Your task to perform on an android device: When is my next meeting? Image 0: 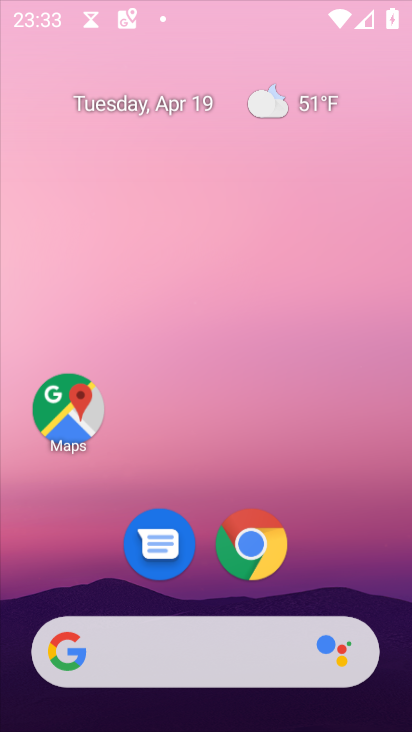
Step 0: drag from (326, 593) to (274, 62)
Your task to perform on an android device: When is my next meeting? Image 1: 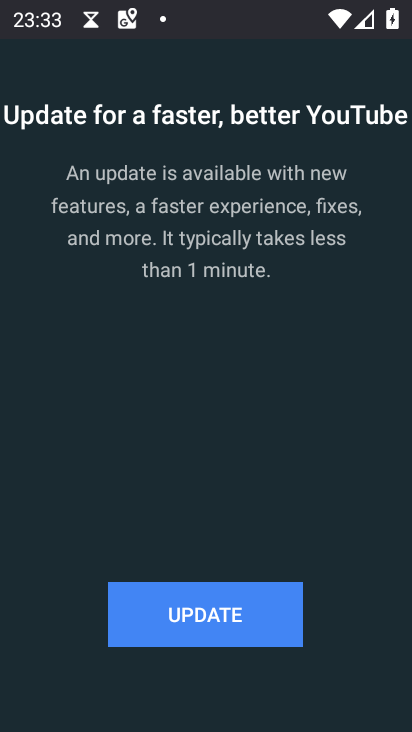
Step 1: press home button
Your task to perform on an android device: When is my next meeting? Image 2: 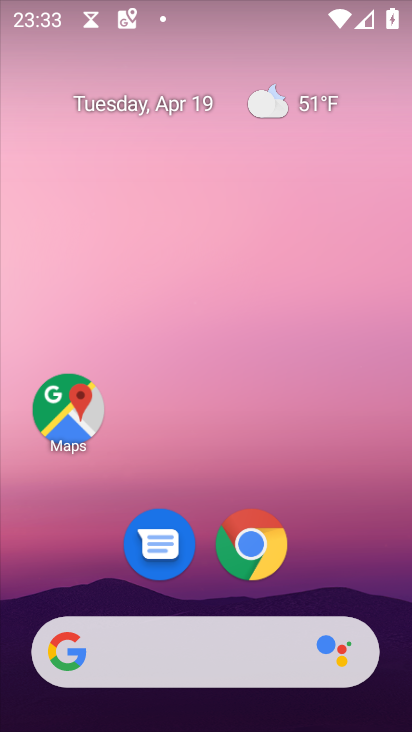
Step 2: drag from (313, 594) to (300, 150)
Your task to perform on an android device: When is my next meeting? Image 3: 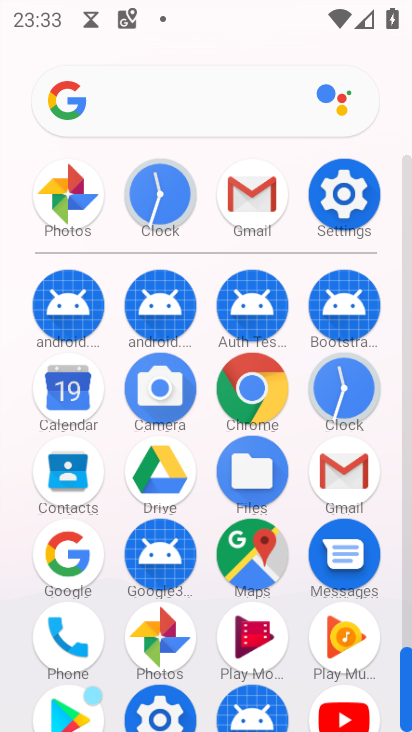
Step 3: click (45, 382)
Your task to perform on an android device: When is my next meeting? Image 4: 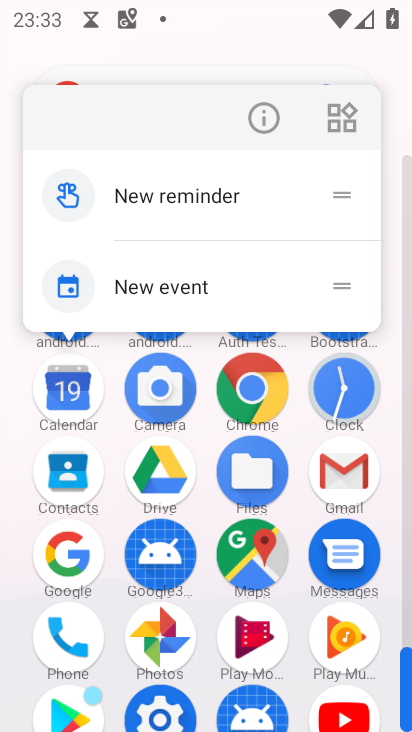
Step 4: click (72, 409)
Your task to perform on an android device: When is my next meeting? Image 5: 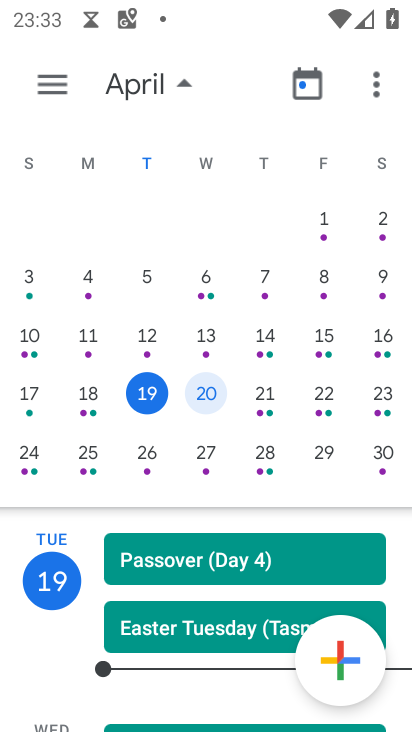
Step 5: click (227, 409)
Your task to perform on an android device: When is my next meeting? Image 6: 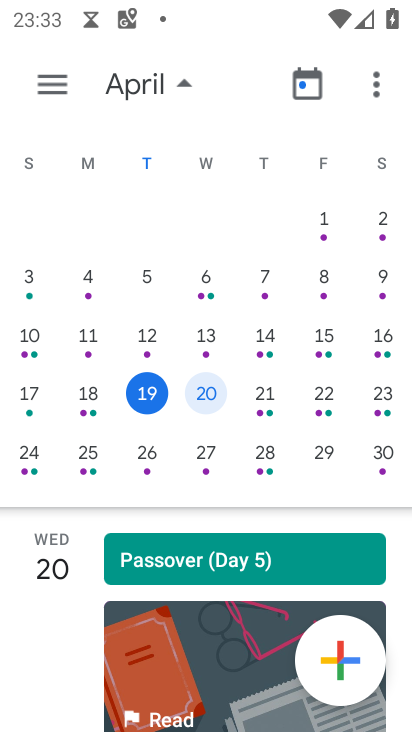
Step 6: click (174, 395)
Your task to perform on an android device: When is my next meeting? Image 7: 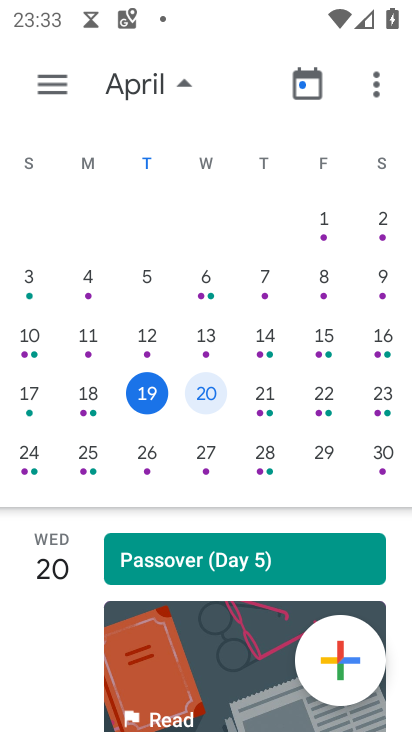
Step 7: click (160, 406)
Your task to perform on an android device: When is my next meeting? Image 8: 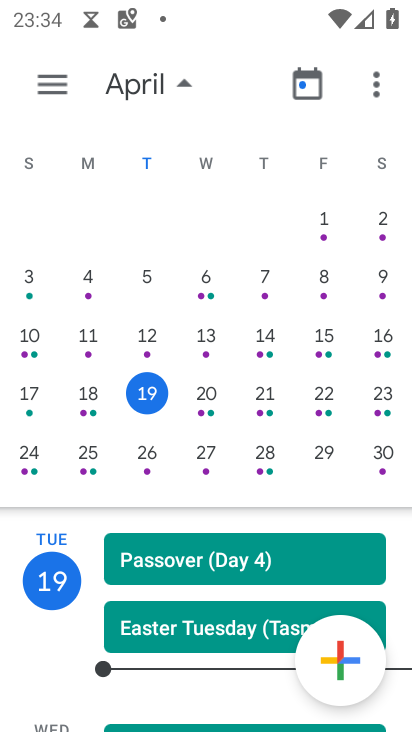
Step 8: click (202, 413)
Your task to perform on an android device: When is my next meeting? Image 9: 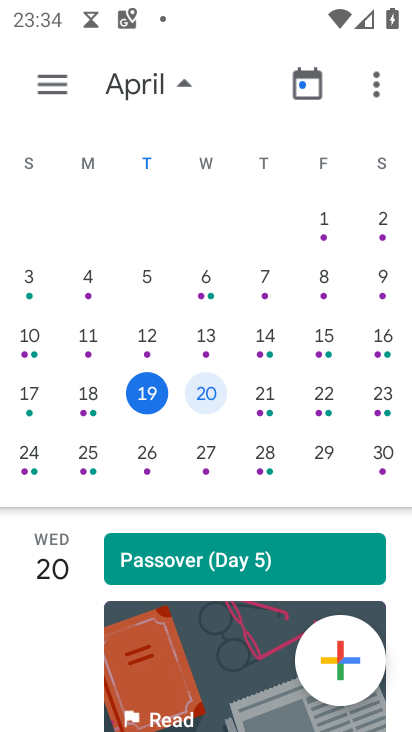
Step 9: task complete